Your task to perform on an android device: Open Google Chrome Image 0: 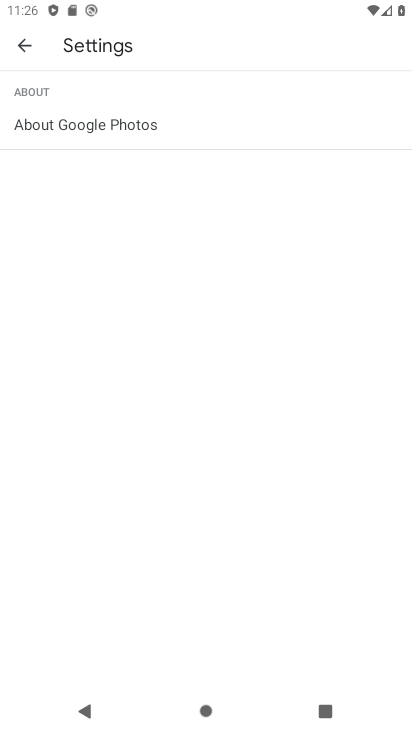
Step 0: press home button
Your task to perform on an android device: Open Google Chrome Image 1: 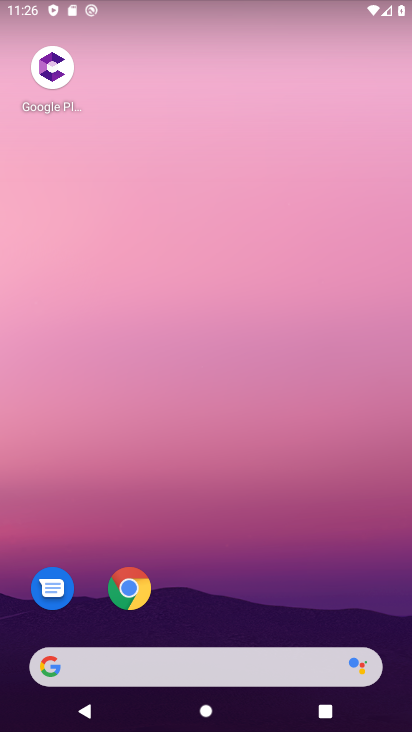
Step 1: drag from (207, 582) to (178, 158)
Your task to perform on an android device: Open Google Chrome Image 2: 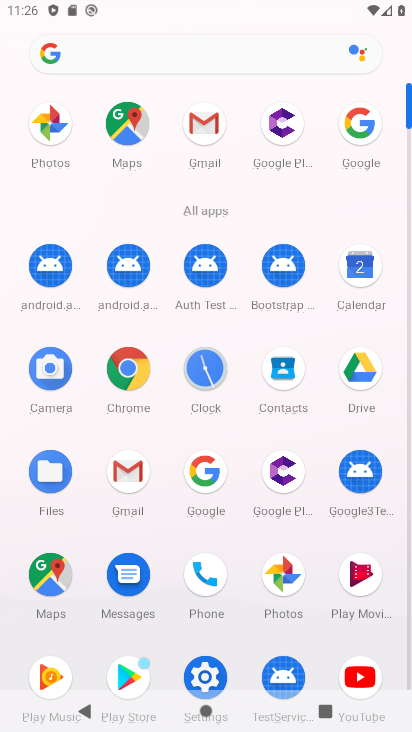
Step 2: drag from (232, 224) to (241, 70)
Your task to perform on an android device: Open Google Chrome Image 3: 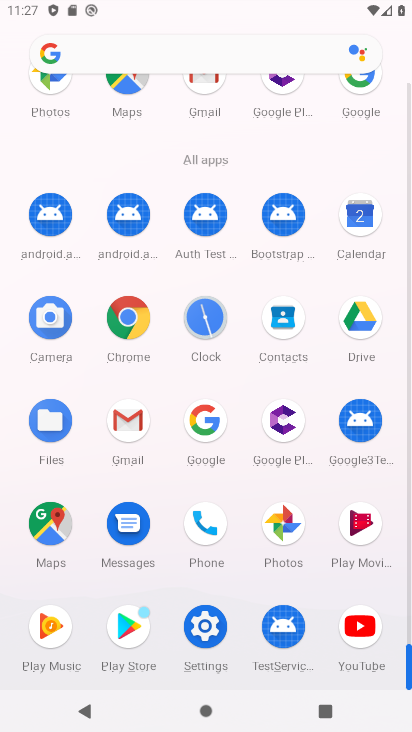
Step 3: click (124, 332)
Your task to perform on an android device: Open Google Chrome Image 4: 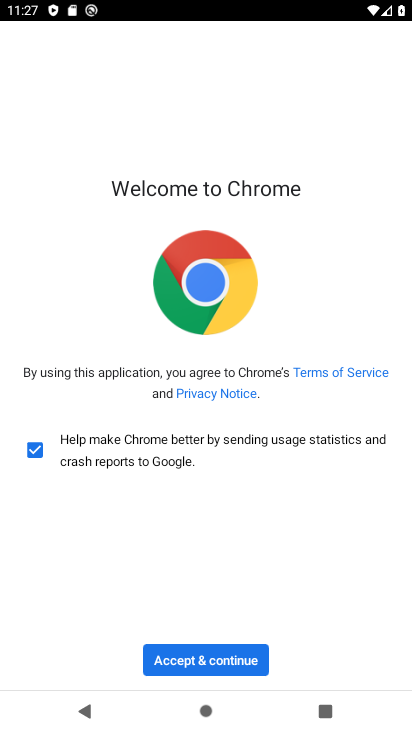
Step 4: click (207, 649)
Your task to perform on an android device: Open Google Chrome Image 5: 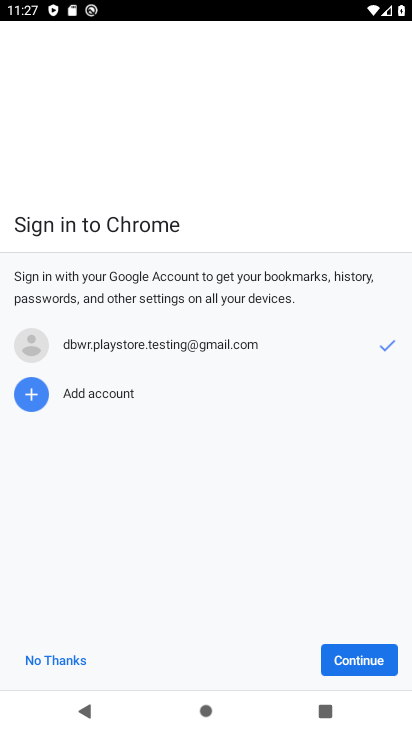
Step 5: click (338, 669)
Your task to perform on an android device: Open Google Chrome Image 6: 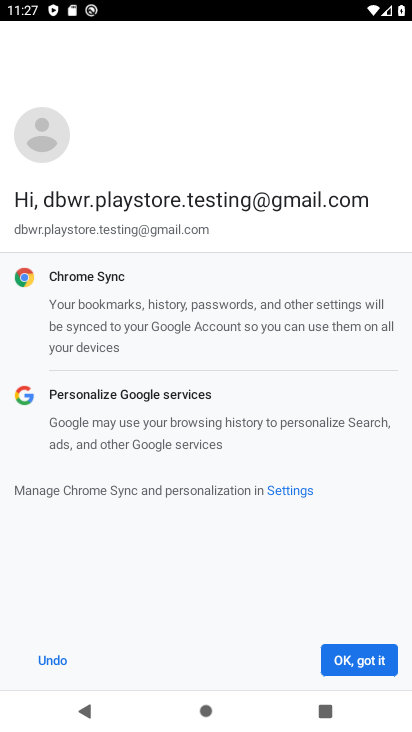
Step 6: click (352, 661)
Your task to perform on an android device: Open Google Chrome Image 7: 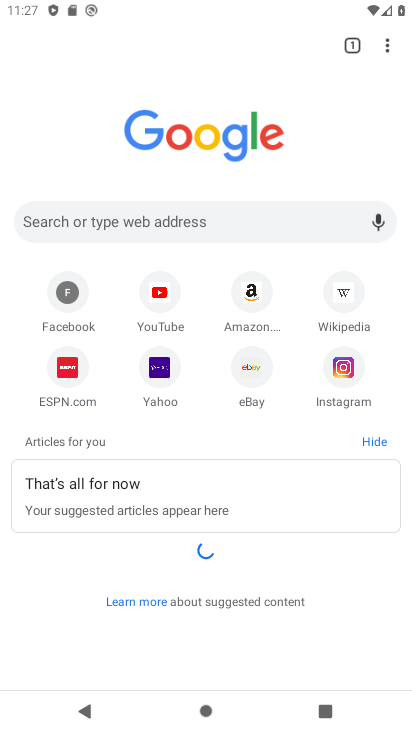
Step 7: click (287, 176)
Your task to perform on an android device: Open Google Chrome Image 8: 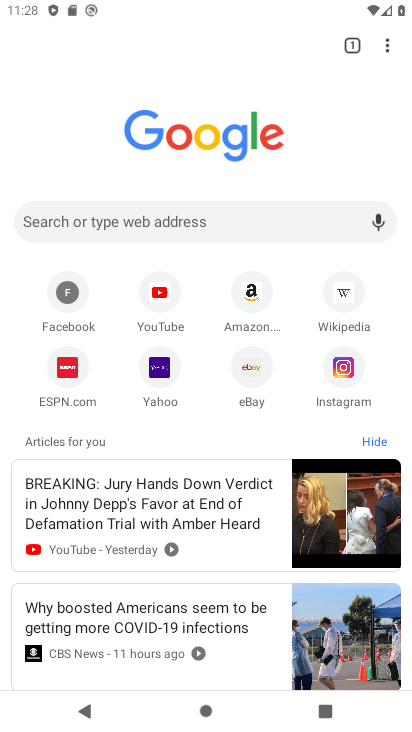
Step 8: task complete